Your task to perform on an android device: uninstall "Pluto TV - Live TV and Movies" Image 0: 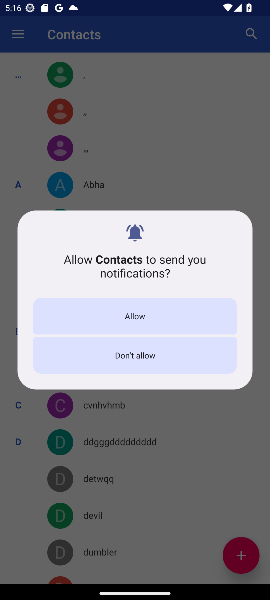
Step 0: press home button
Your task to perform on an android device: uninstall "Pluto TV - Live TV and Movies" Image 1: 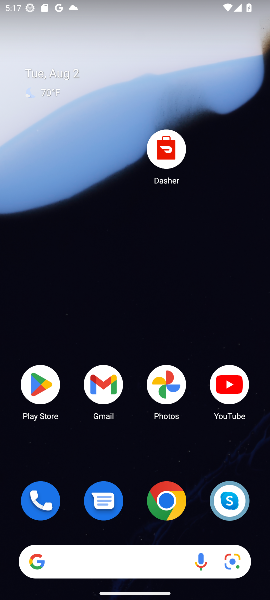
Step 1: click (32, 386)
Your task to perform on an android device: uninstall "Pluto TV - Live TV and Movies" Image 2: 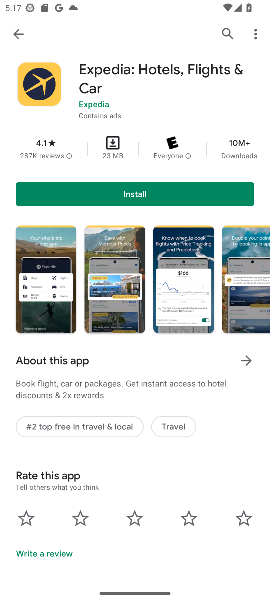
Step 2: click (217, 32)
Your task to perform on an android device: uninstall "Pluto TV - Live TV and Movies" Image 3: 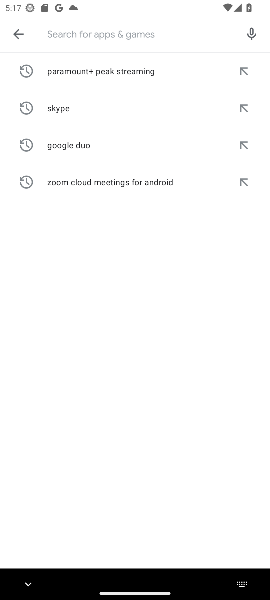
Step 3: type "Pluto TV - Live TV and Movies"
Your task to perform on an android device: uninstall "Pluto TV - Live TV and Movies" Image 4: 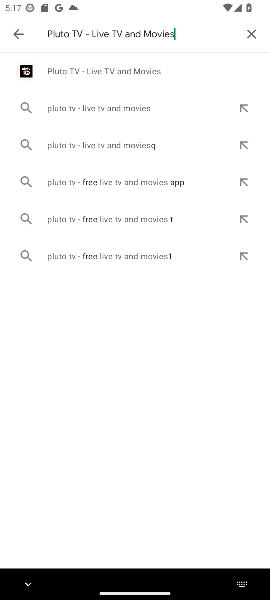
Step 4: click (123, 73)
Your task to perform on an android device: uninstall "Pluto TV - Live TV and Movies" Image 5: 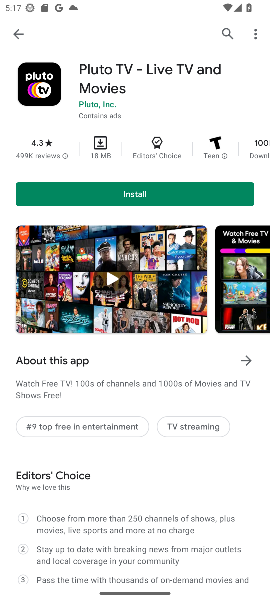
Step 5: task complete